Your task to perform on an android device: empty trash in the gmail app Image 0: 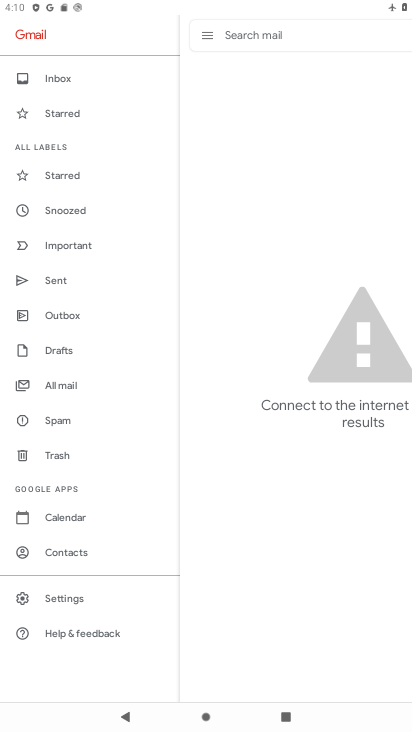
Step 0: press home button
Your task to perform on an android device: empty trash in the gmail app Image 1: 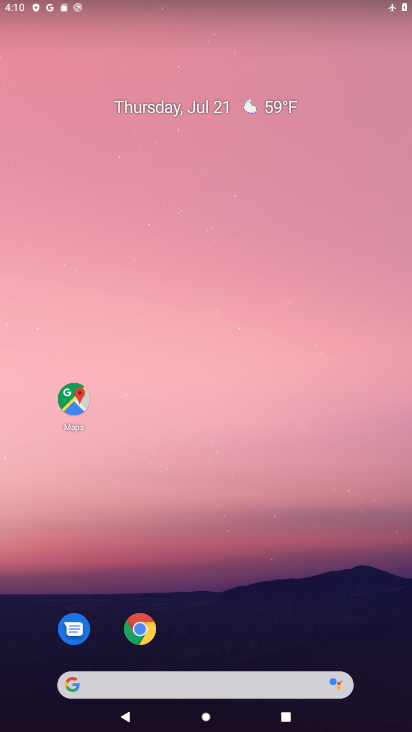
Step 1: drag from (222, 587) to (165, 63)
Your task to perform on an android device: empty trash in the gmail app Image 2: 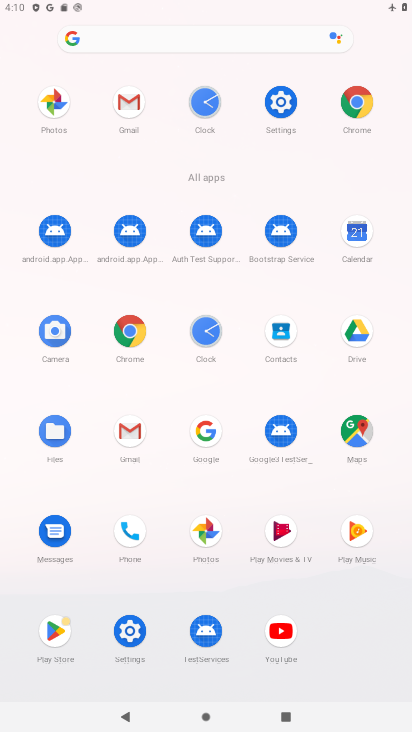
Step 2: click (130, 434)
Your task to perform on an android device: empty trash in the gmail app Image 3: 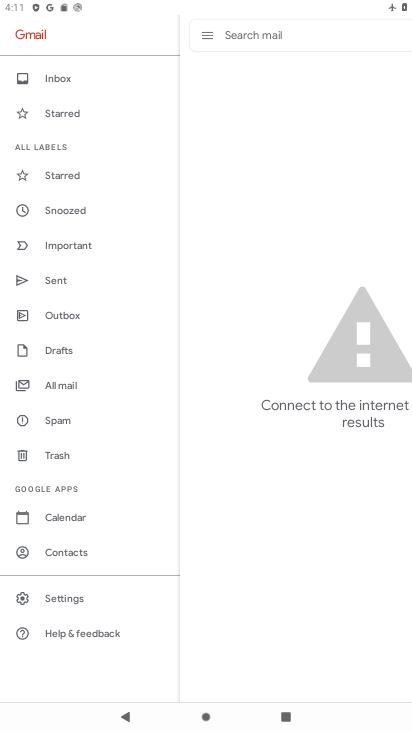
Step 3: click (49, 452)
Your task to perform on an android device: empty trash in the gmail app Image 4: 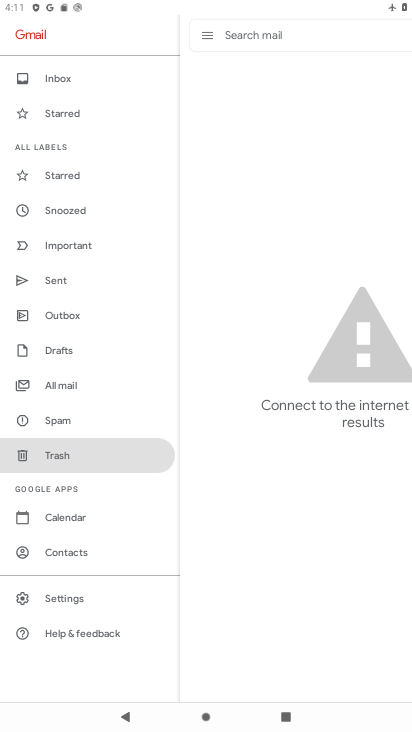
Step 4: task complete